Your task to perform on an android device: Show the shopping cart on newegg.com. Image 0: 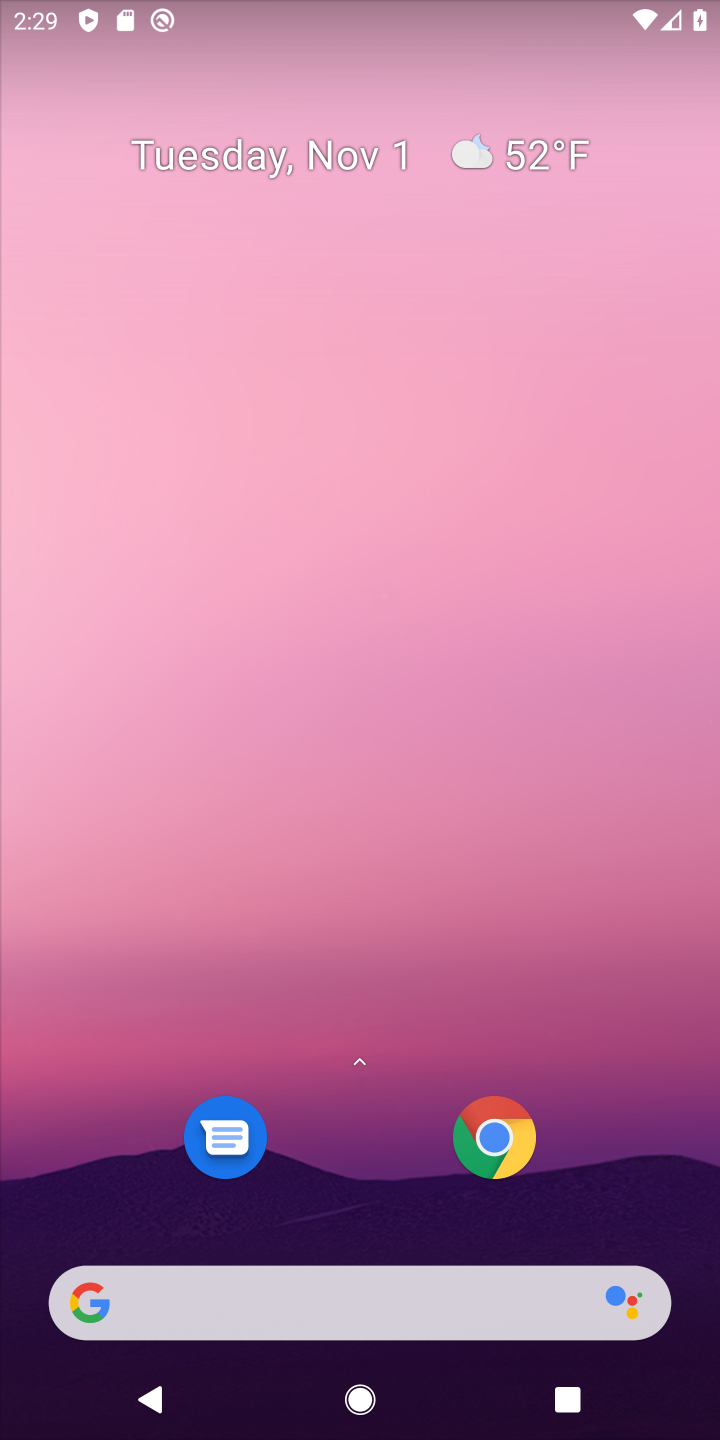
Step 0: click (340, 1298)
Your task to perform on an android device: Show the shopping cart on newegg.com. Image 1: 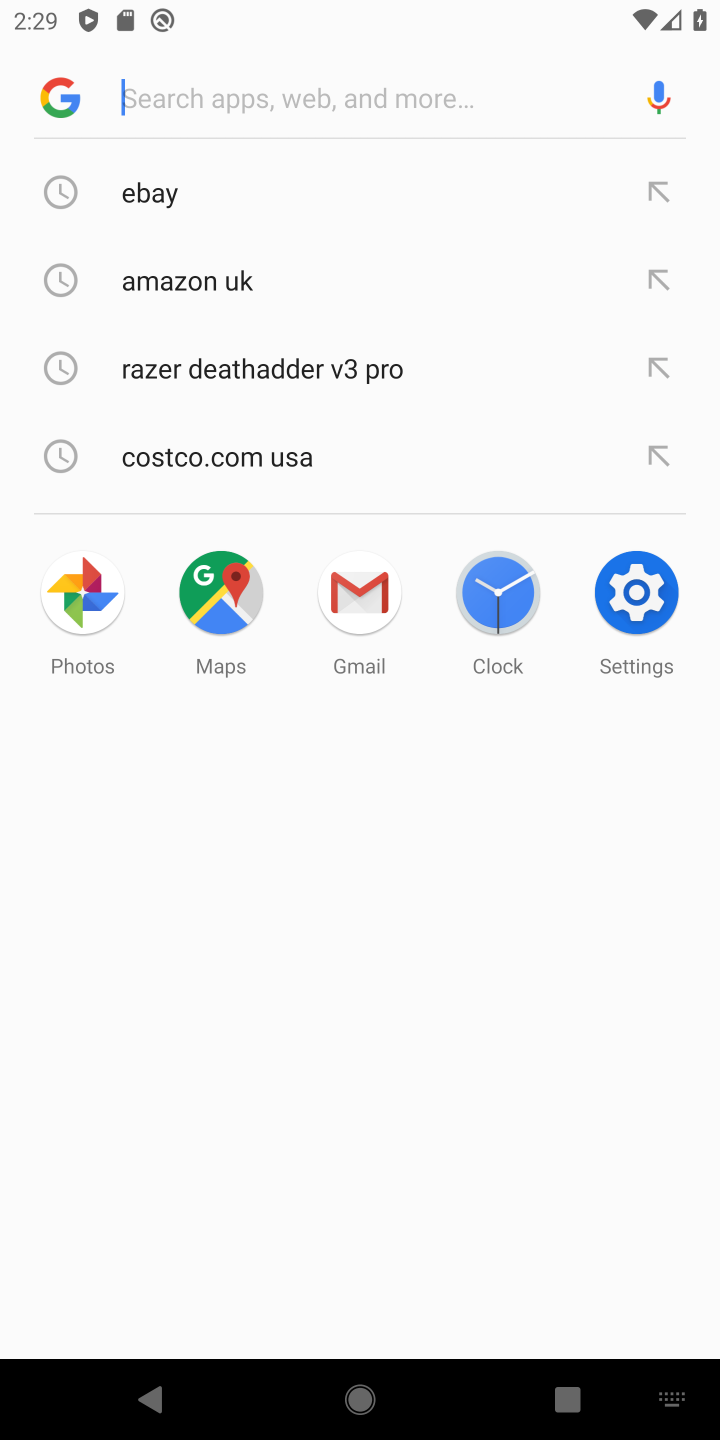
Step 1: type "newegg"
Your task to perform on an android device: Show the shopping cart on newegg.com. Image 2: 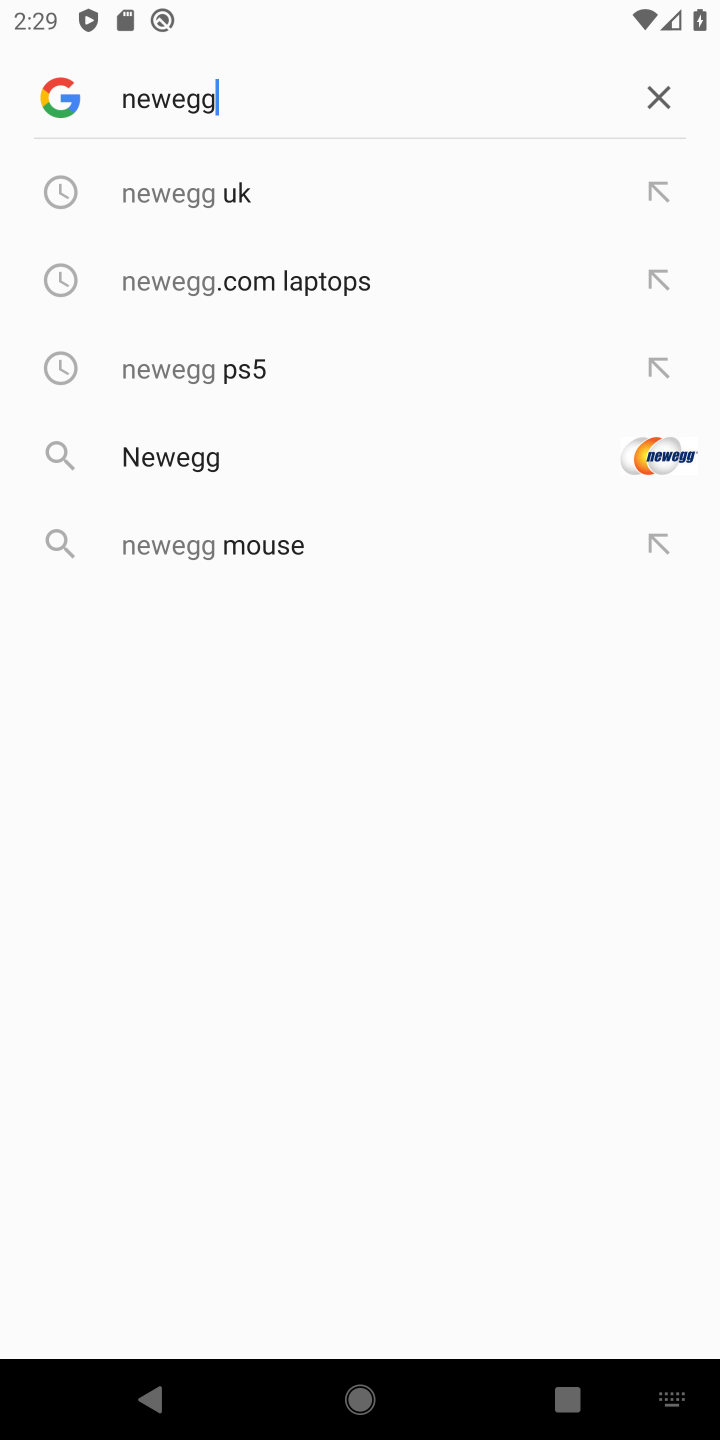
Step 2: click (132, 223)
Your task to perform on an android device: Show the shopping cart on newegg.com. Image 3: 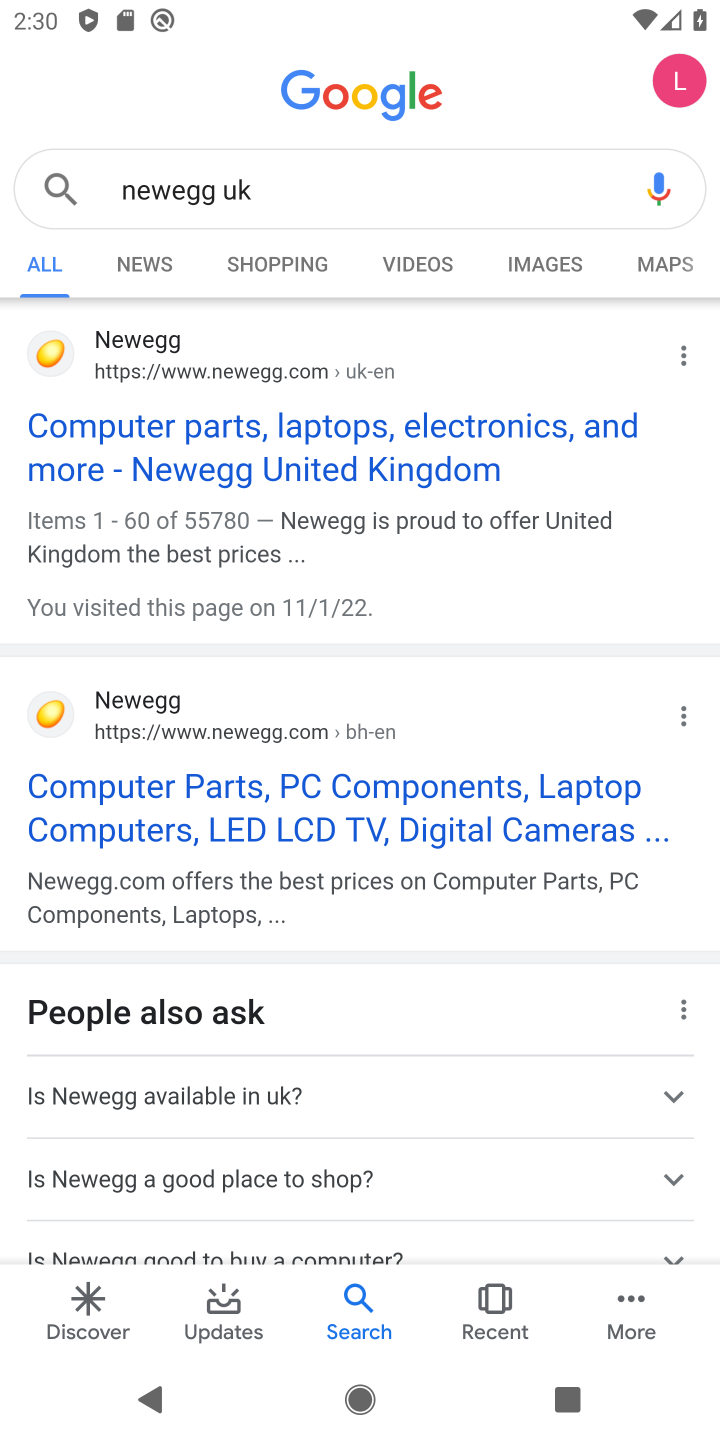
Step 3: click (358, 470)
Your task to perform on an android device: Show the shopping cart on newegg.com. Image 4: 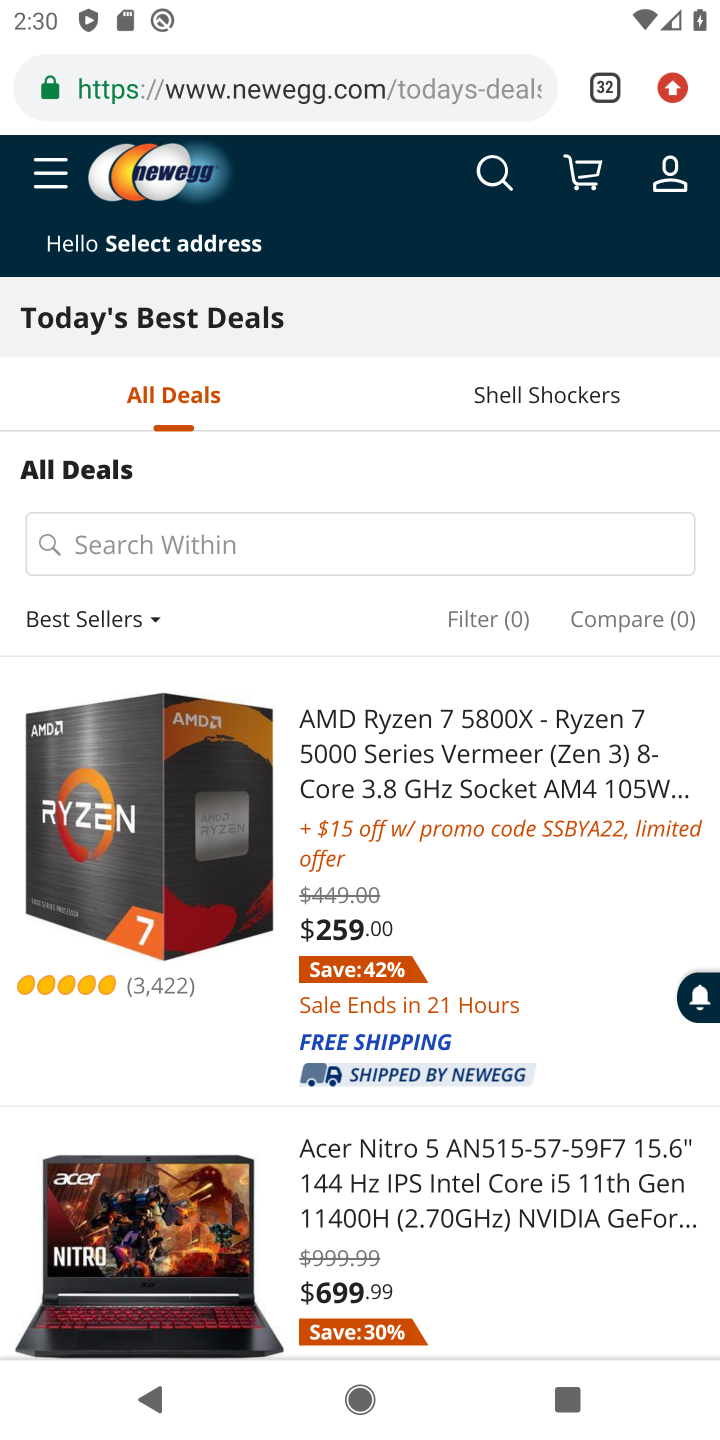
Step 4: click (585, 163)
Your task to perform on an android device: Show the shopping cart on newegg.com. Image 5: 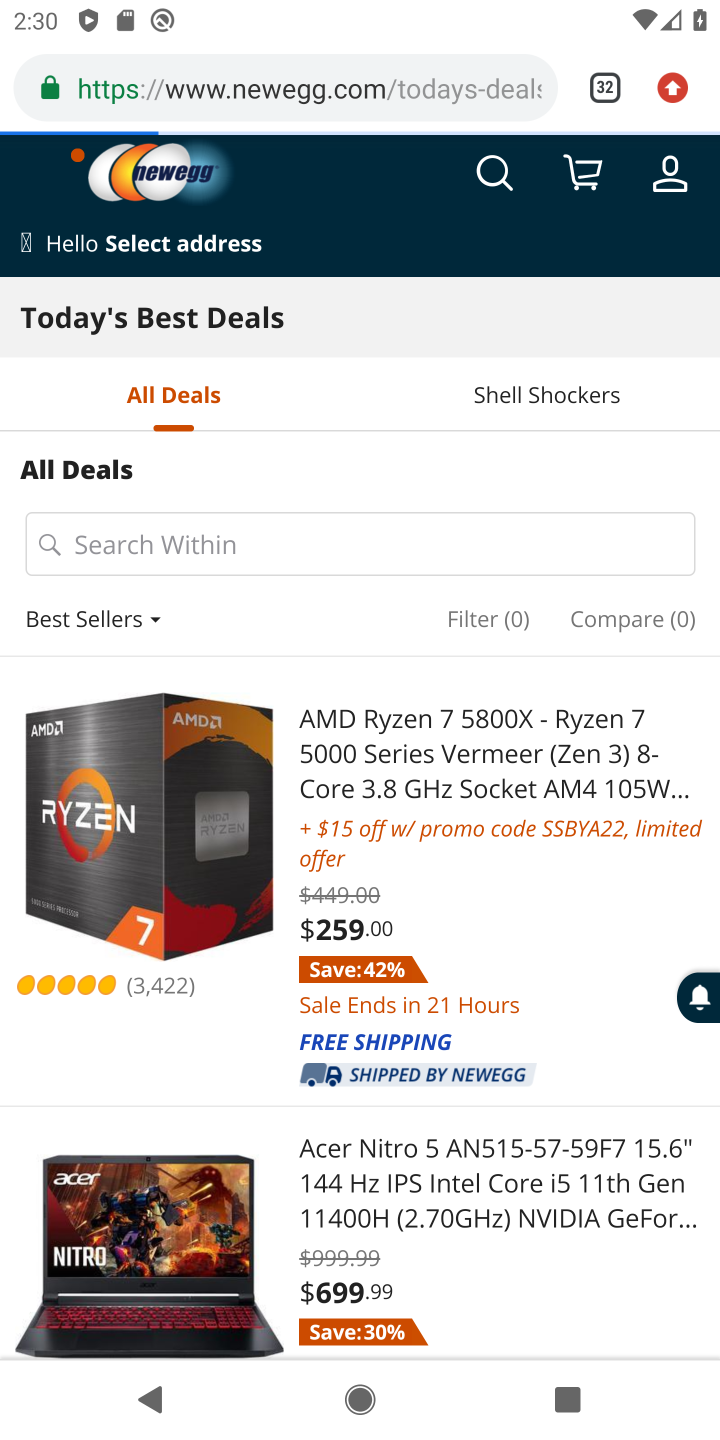
Step 5: task complete